Your task to perform on an android device: Go to eBay Image 0: 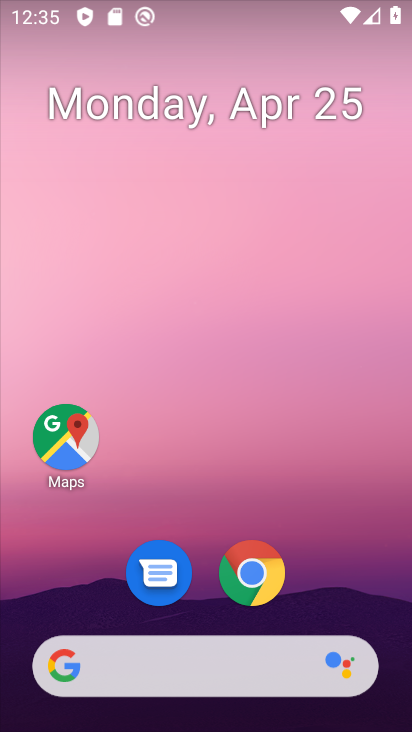
Step 0: click (176, 666)
Your task to perform on an android device: Go to eBay Image 1: 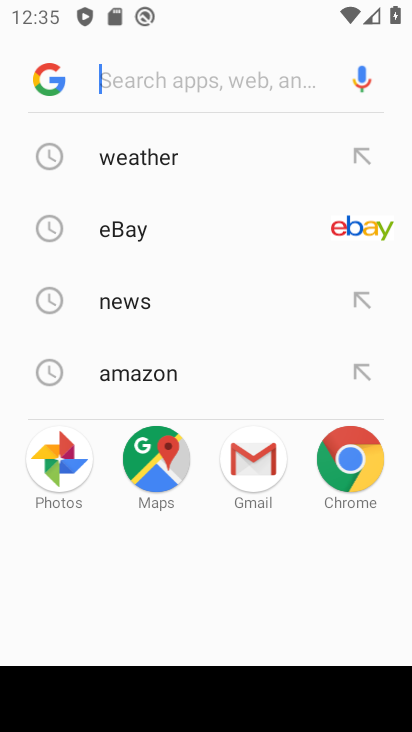
Step 1: click (164, 238)
Your task to perform on an android device: Go to eBay Image 2: 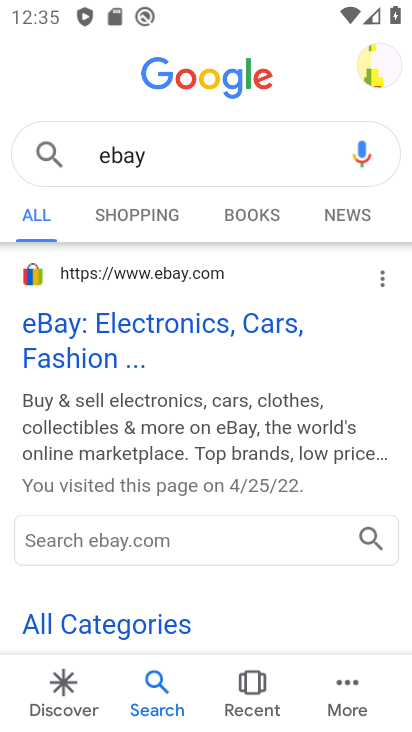
Step 2: click (204, 326)
Your task to perform on an android device: Go to eBay Image 3: 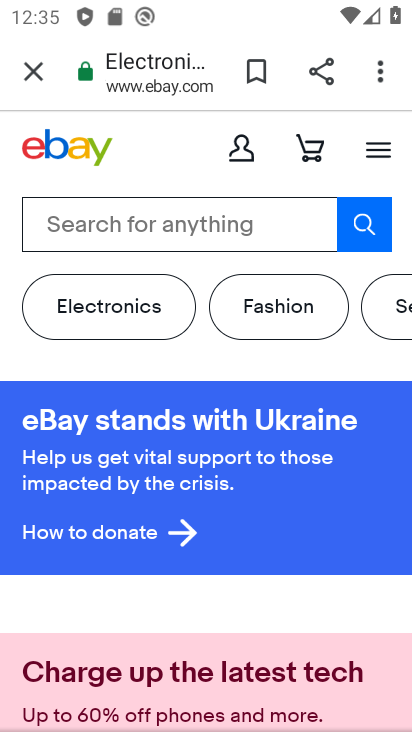
Step 3: task complete